Your task to perform on an android device: open app "Facebook" Image 0: 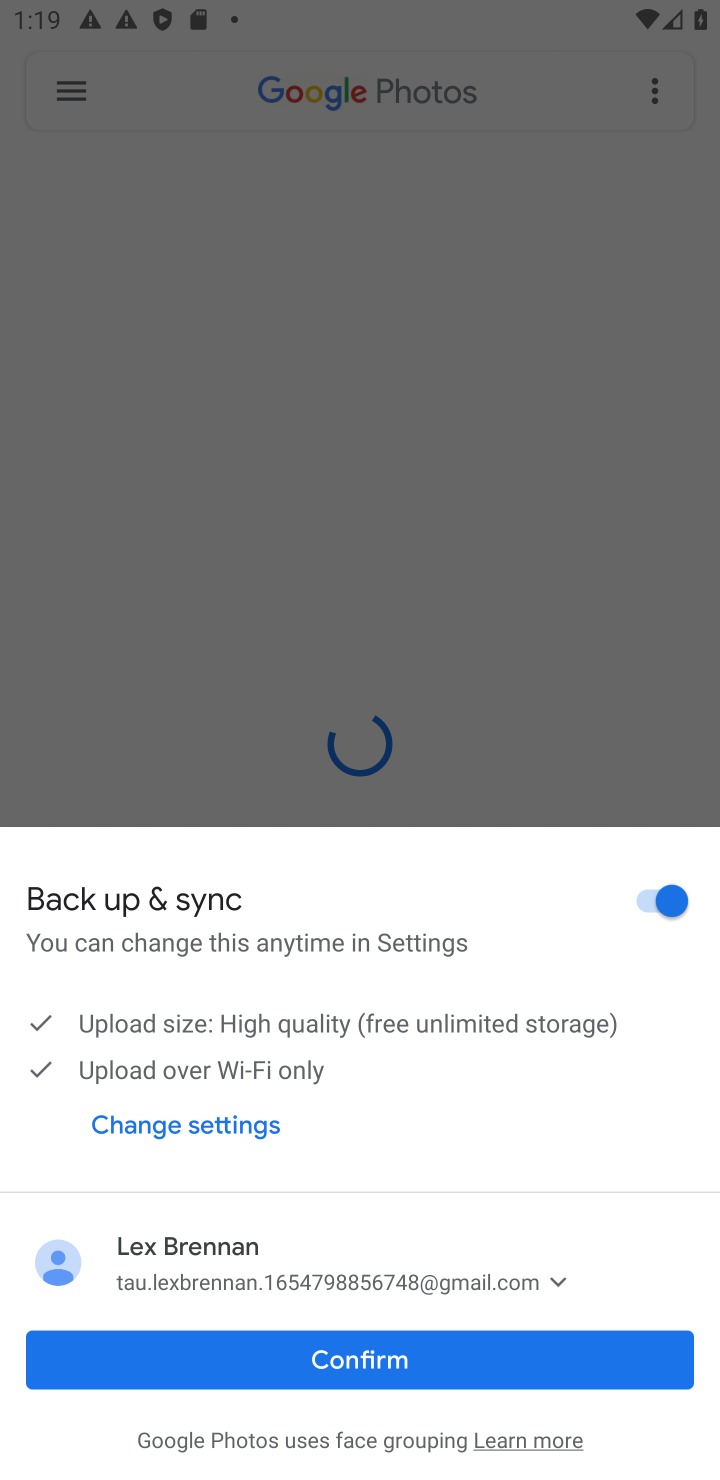
Step 0: press home button
Your task to perform on an android device: open app "Facebook" Image 1: 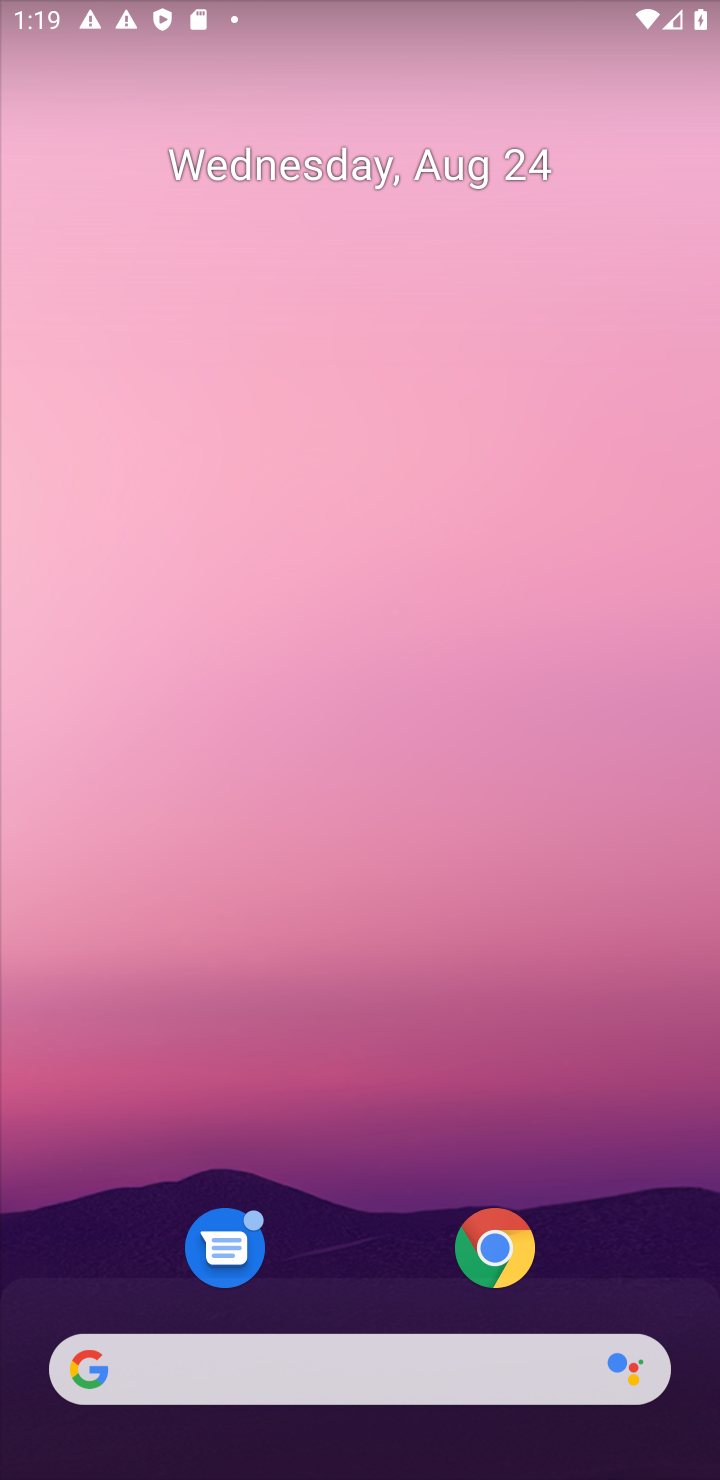
Step 1: drag from (333, 1105) to (366, 347)
Your task to perform on an android device: open app "Facebook" Image 2: 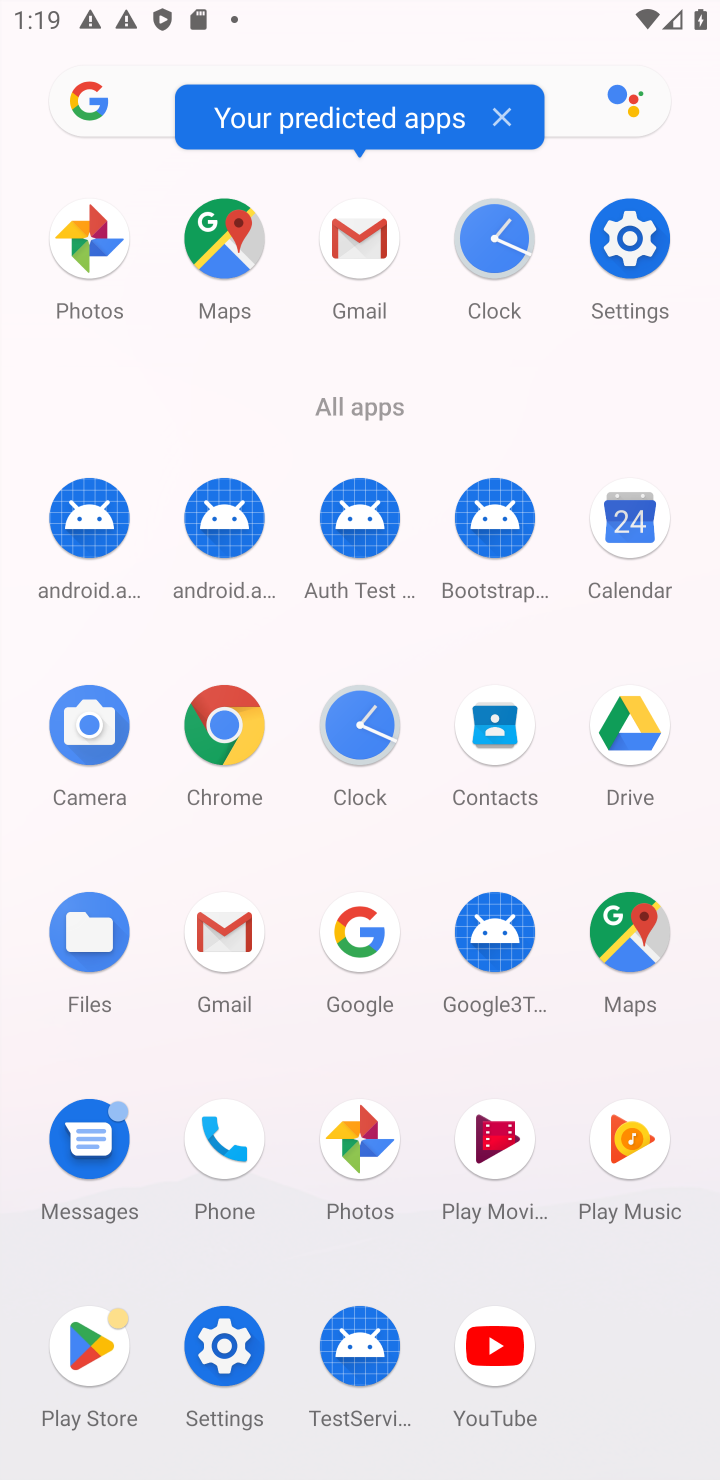
Step 2: click (77, 1325)
Your task to perform on an android device: open app "Facebook" Image 3: 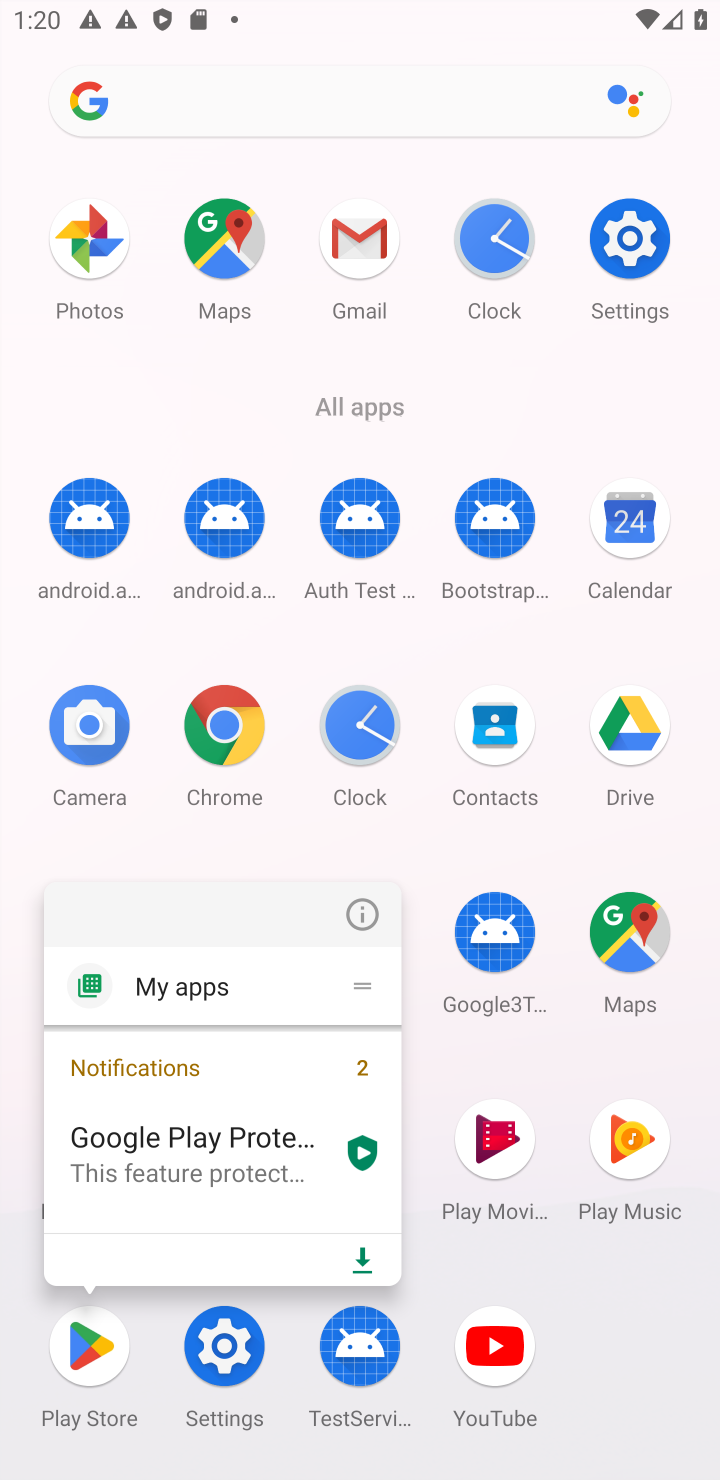
Step 3: click (79, 1366)
Your task to perform on an android device: open app "Facebook" Image 4: 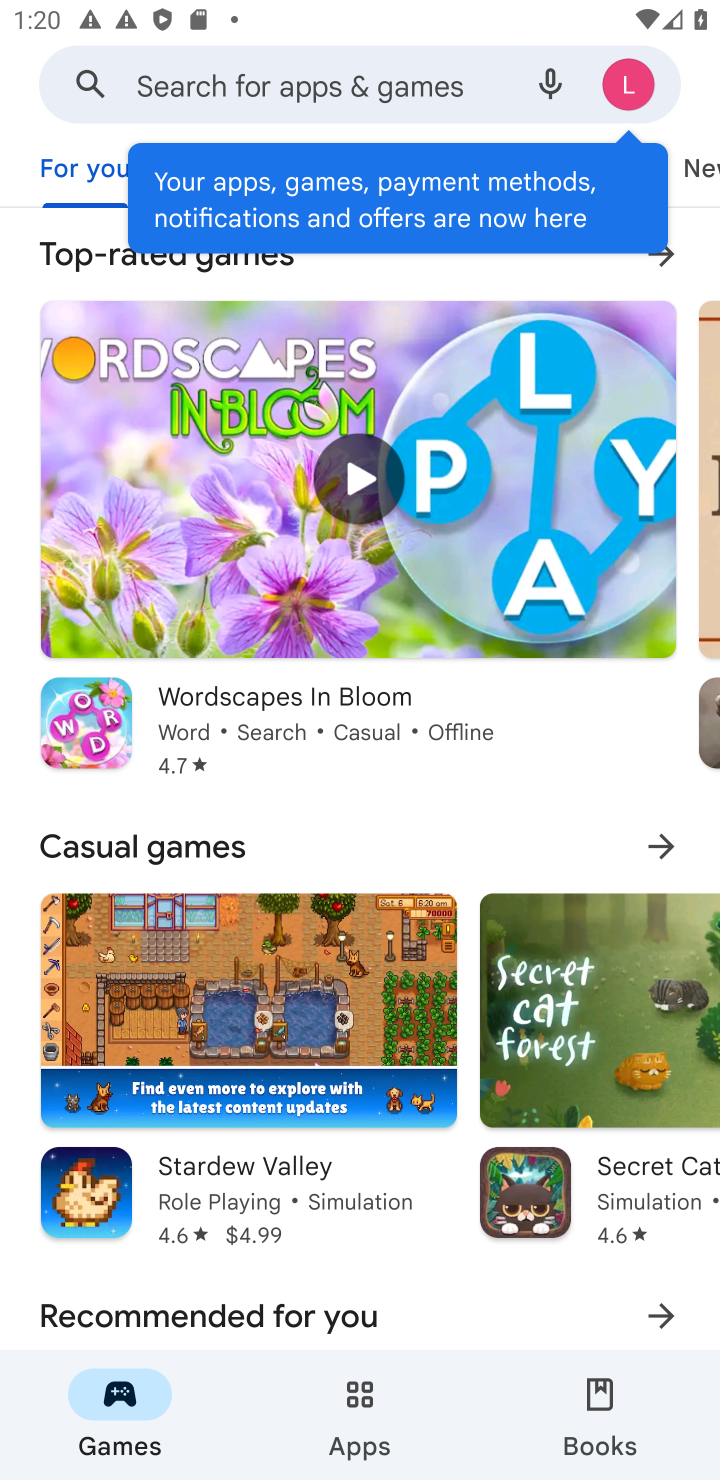
Step 4: click (336, 66)
Your task to perform on an android device: open app "Facebook" Image 5: 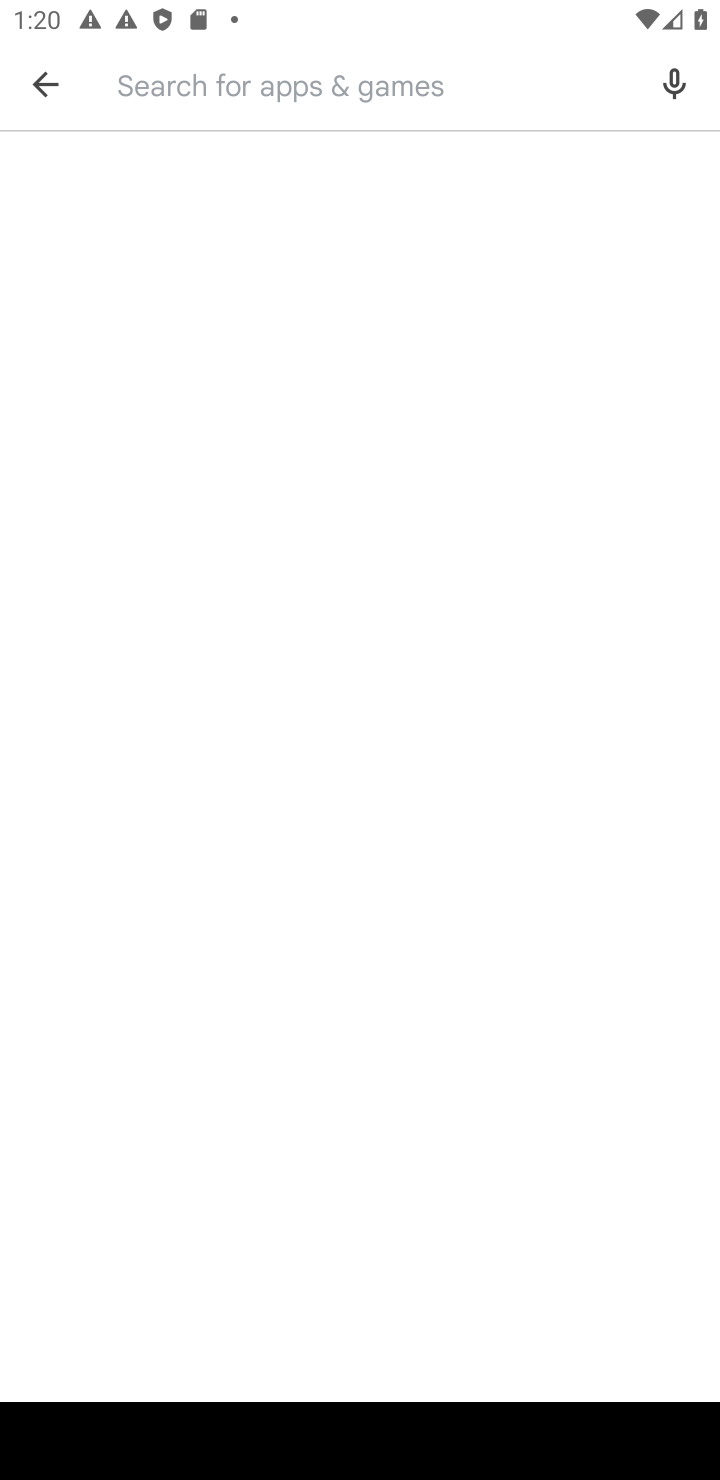
Step 5: type "Facebook "
Your task to perform on an android device: open app "Facebook" Image 6: 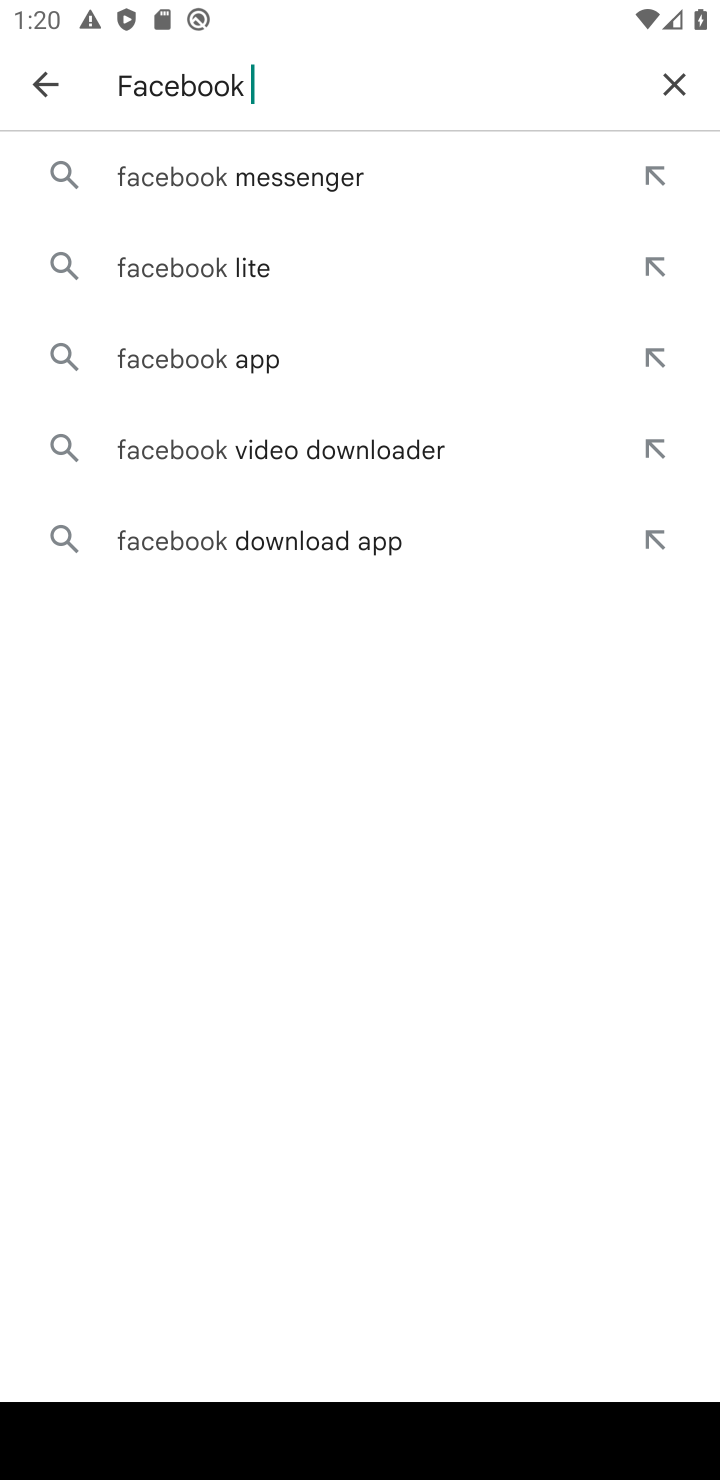
Step 6: click (200, 359)
Your task to perform on an android device: open app "Facebook" Image 7: 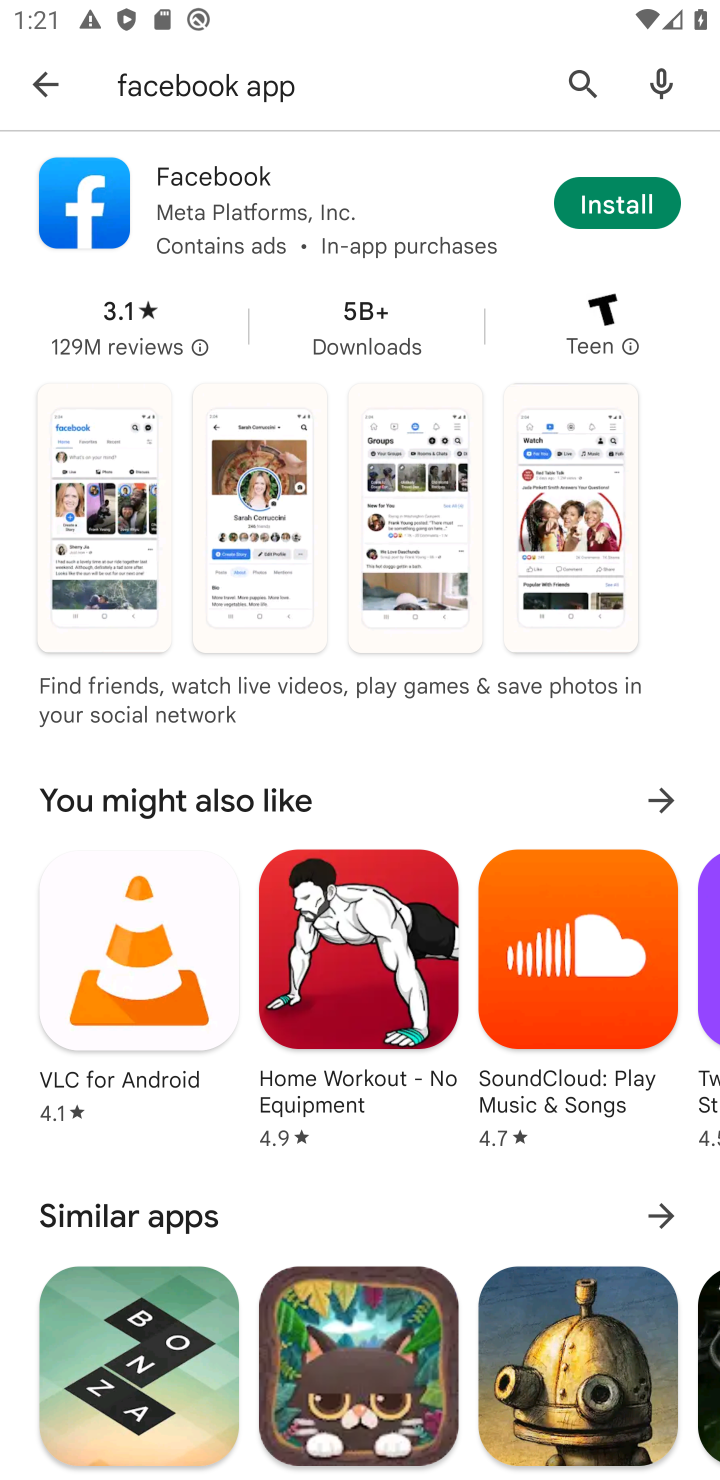
Step 7: click (666, 176)
Your task to perform on an android device: open app "Facebook" Image 8: 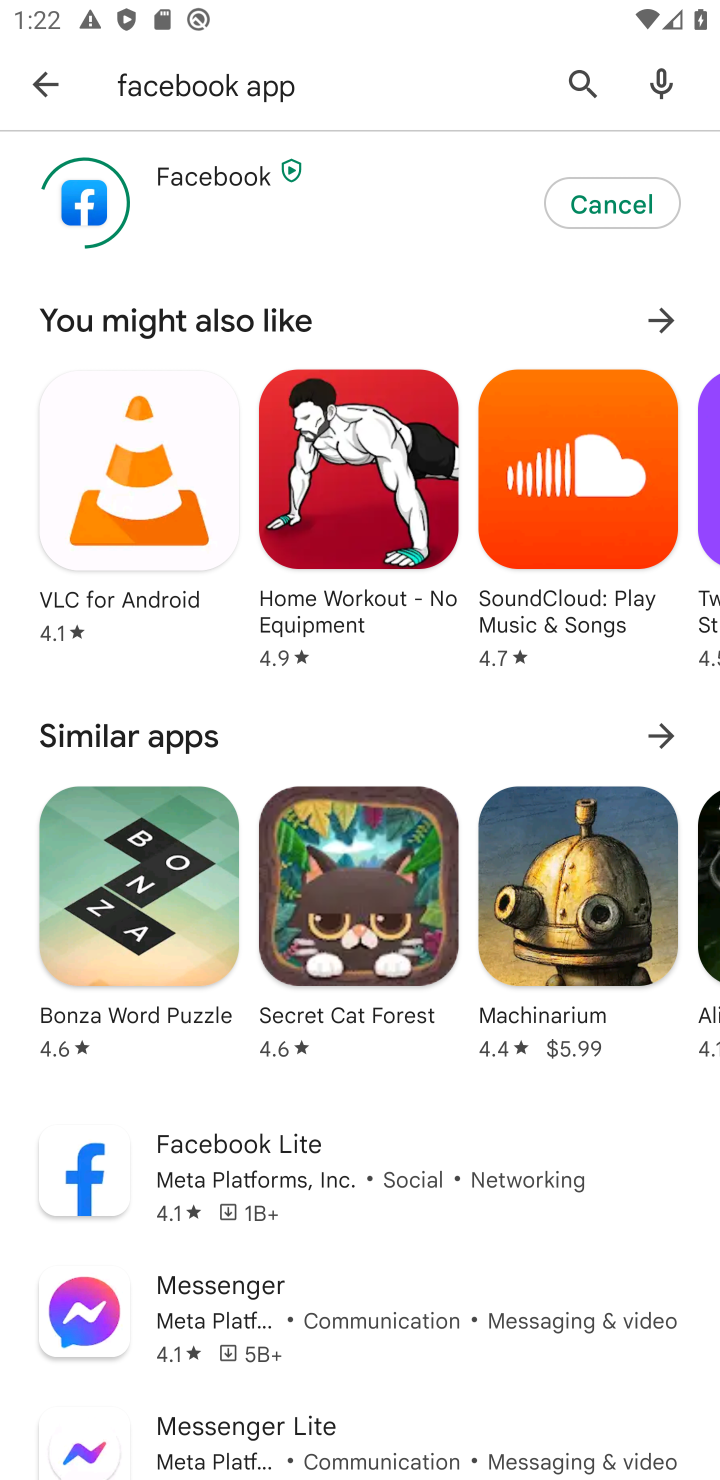
Step 8: task complete